Your task to perform on an android device: set an alarm Image 0: 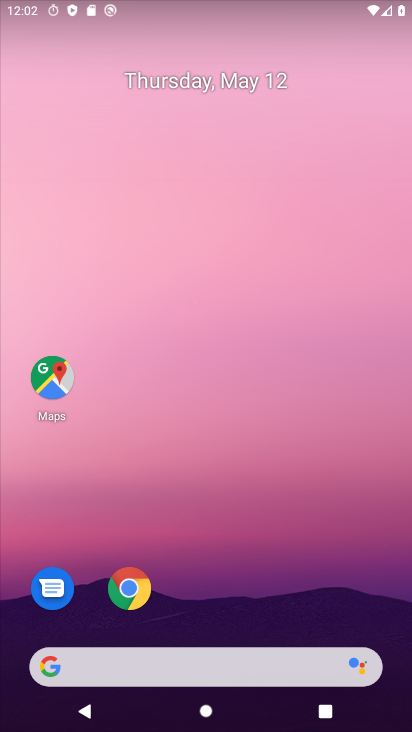
Step 0: drag from (221, 602) to (222, 260)
Your task to perform on an android device: set an alarm Image 1: 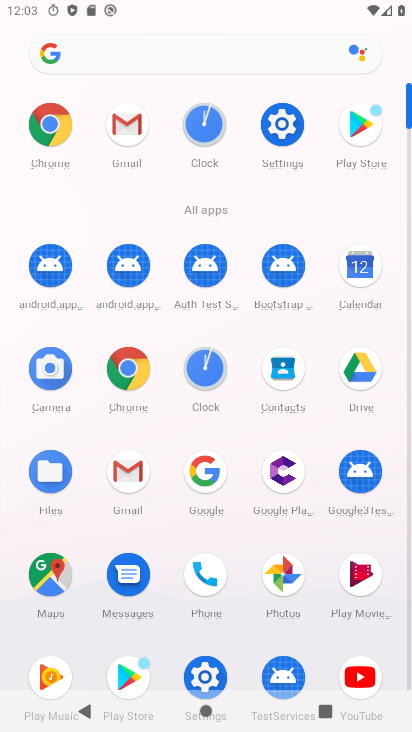
Step 1: click (195, 128)
Your task to perform on an android device: set an alarm Image 2: 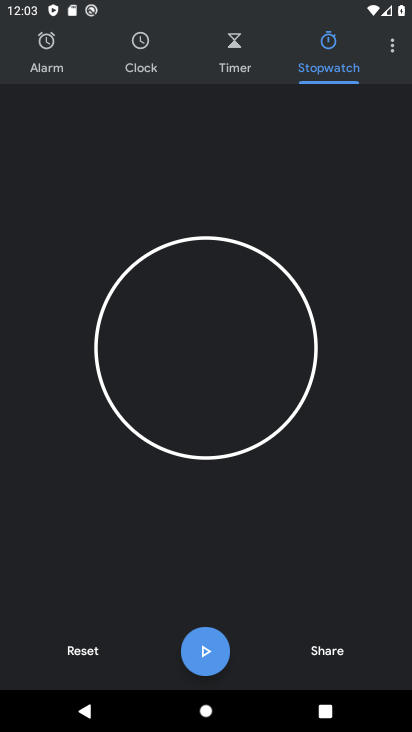
Step 2: click (56, 66)
Your task to perform on an android device: set an alarm Image 3: 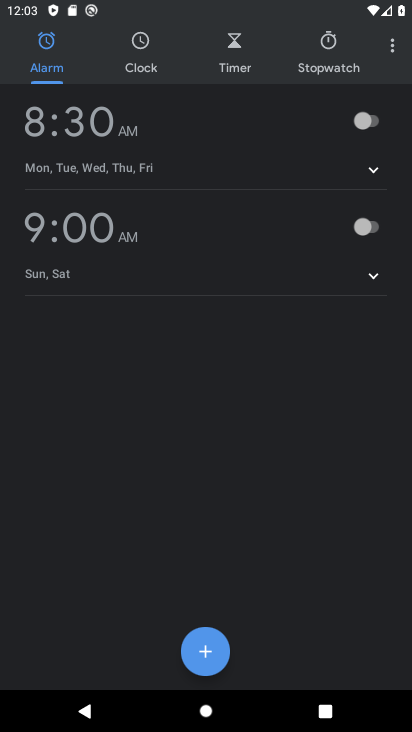
Step 3: task complete